Your task to perform on an android device: Add "jbl charge 4" to the cart on walmart.com, then select checkout. Image 0: 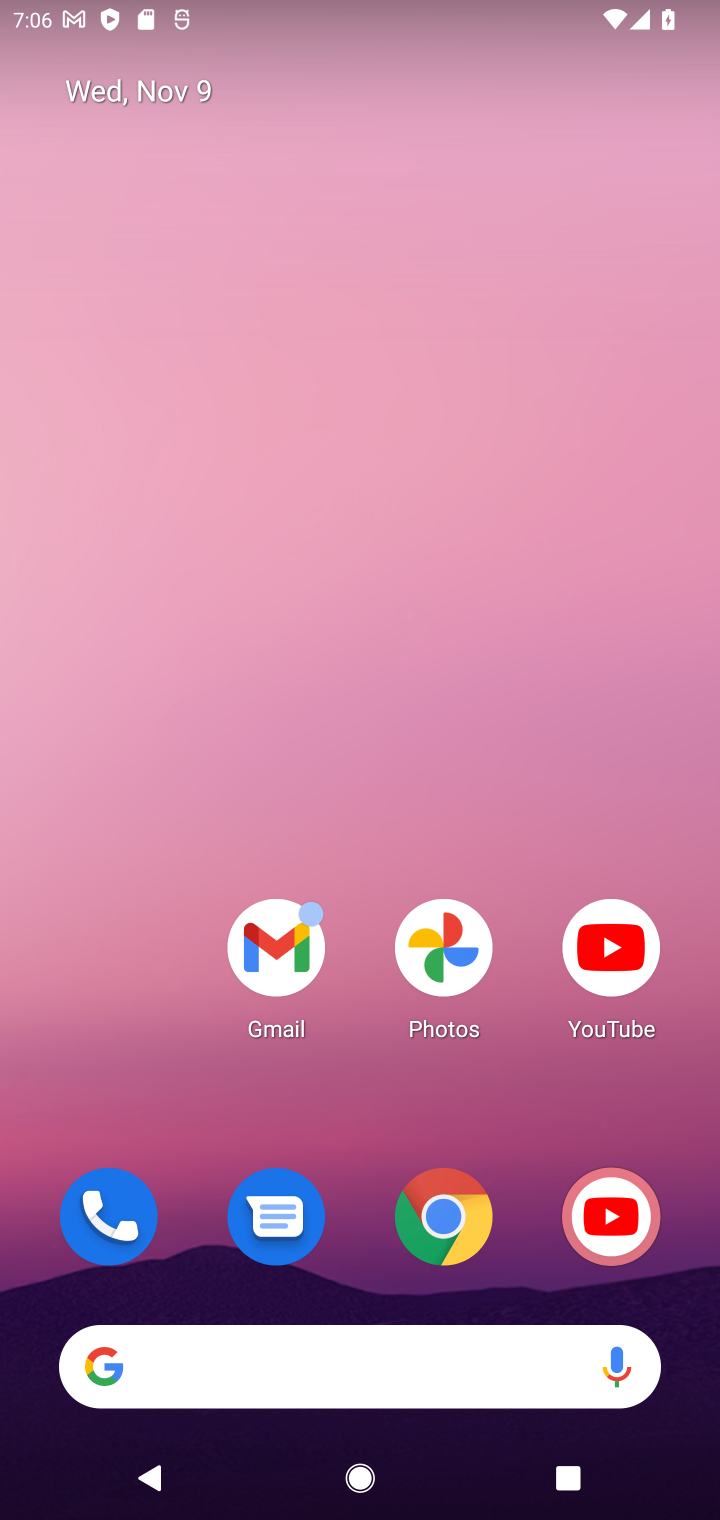
Step 0: drag from (351, 1077) to (367, 149)
Your task to perform on an android device: Add "jbl charge 4" to the cart on walmart.com, then select checkout. Image 1: 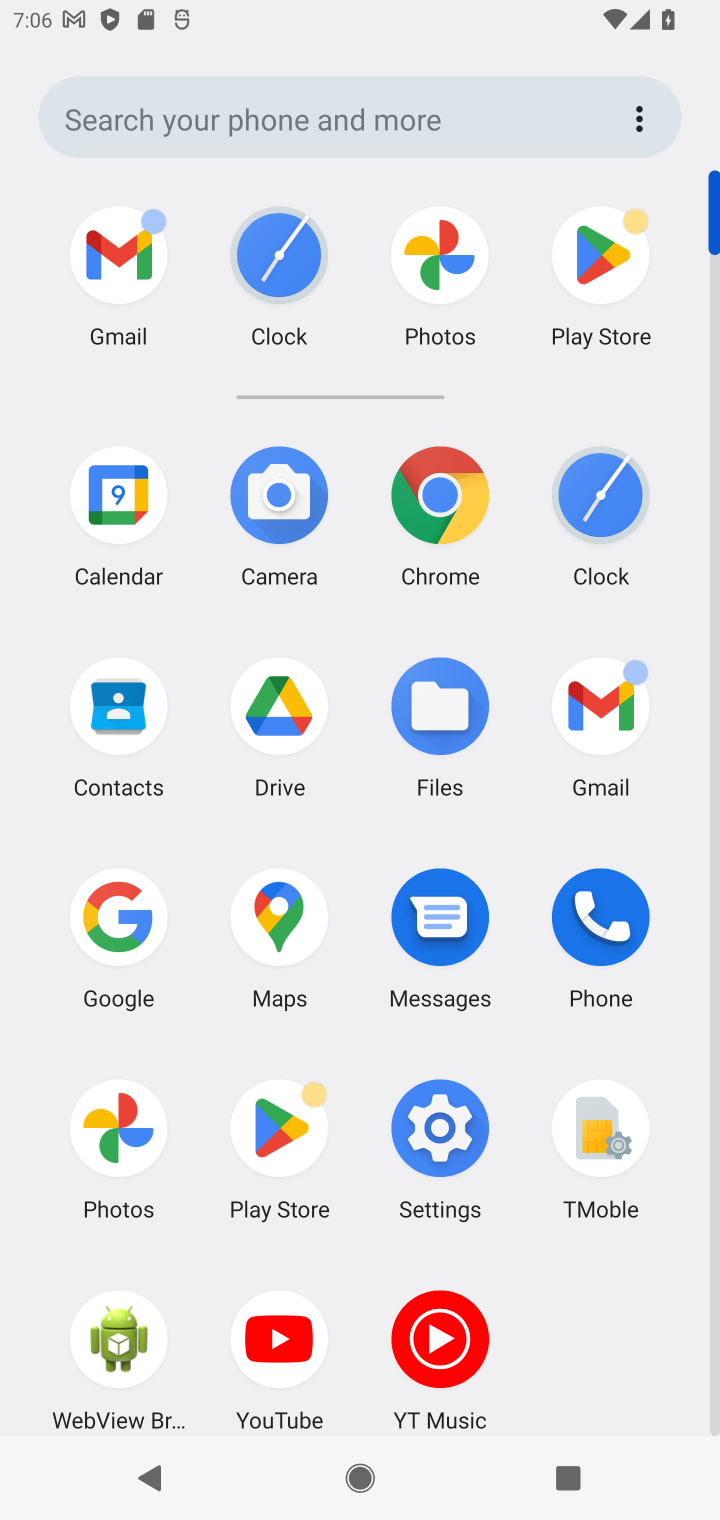
Step 1: click (439, 499)
Your task to perform on an android device: Add "jbl charge 4" to the cart on walmart.com, then select checkout. Image 2: 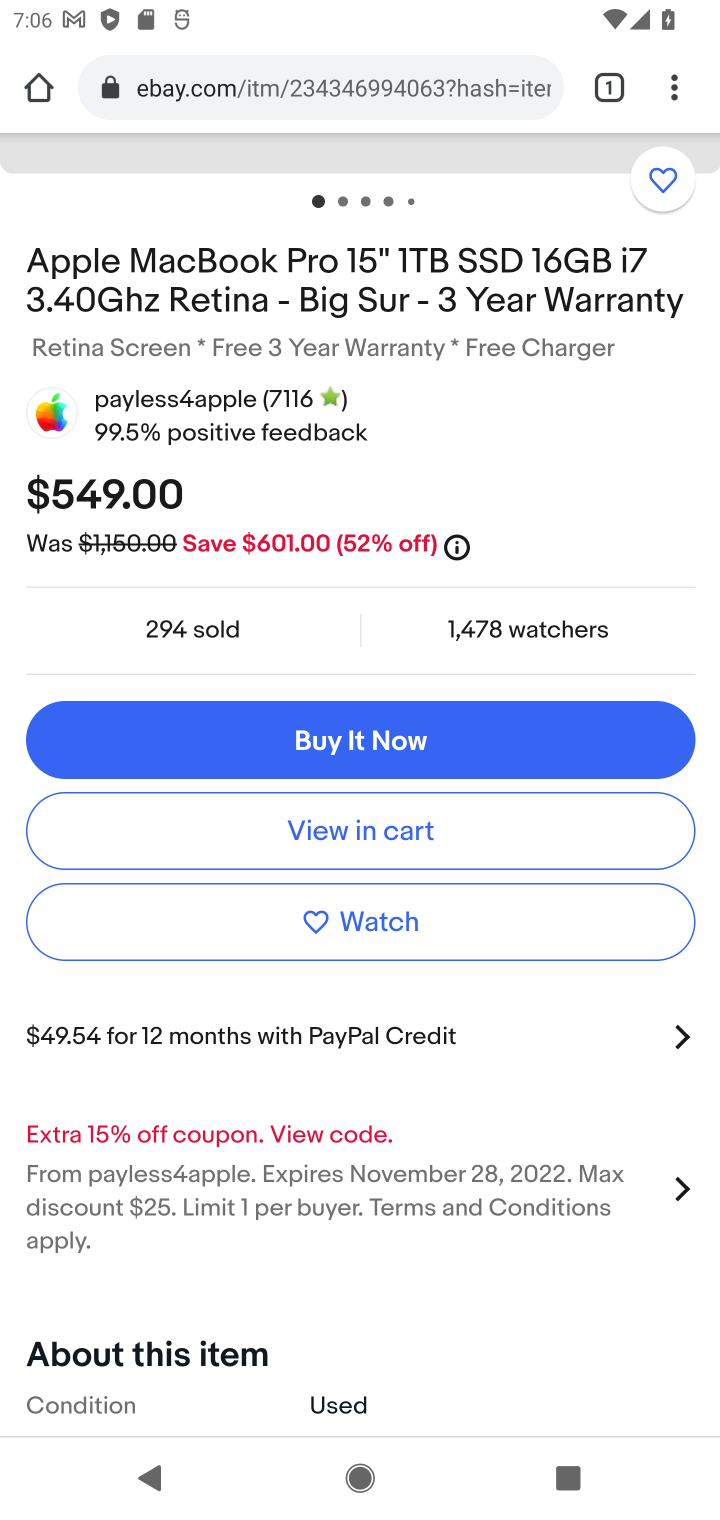
Step 2: click (347, 80)
Your task to perform on an android device: Add "jbl charge 4" to the cart on walmart.com, then select checkout. Image 3: 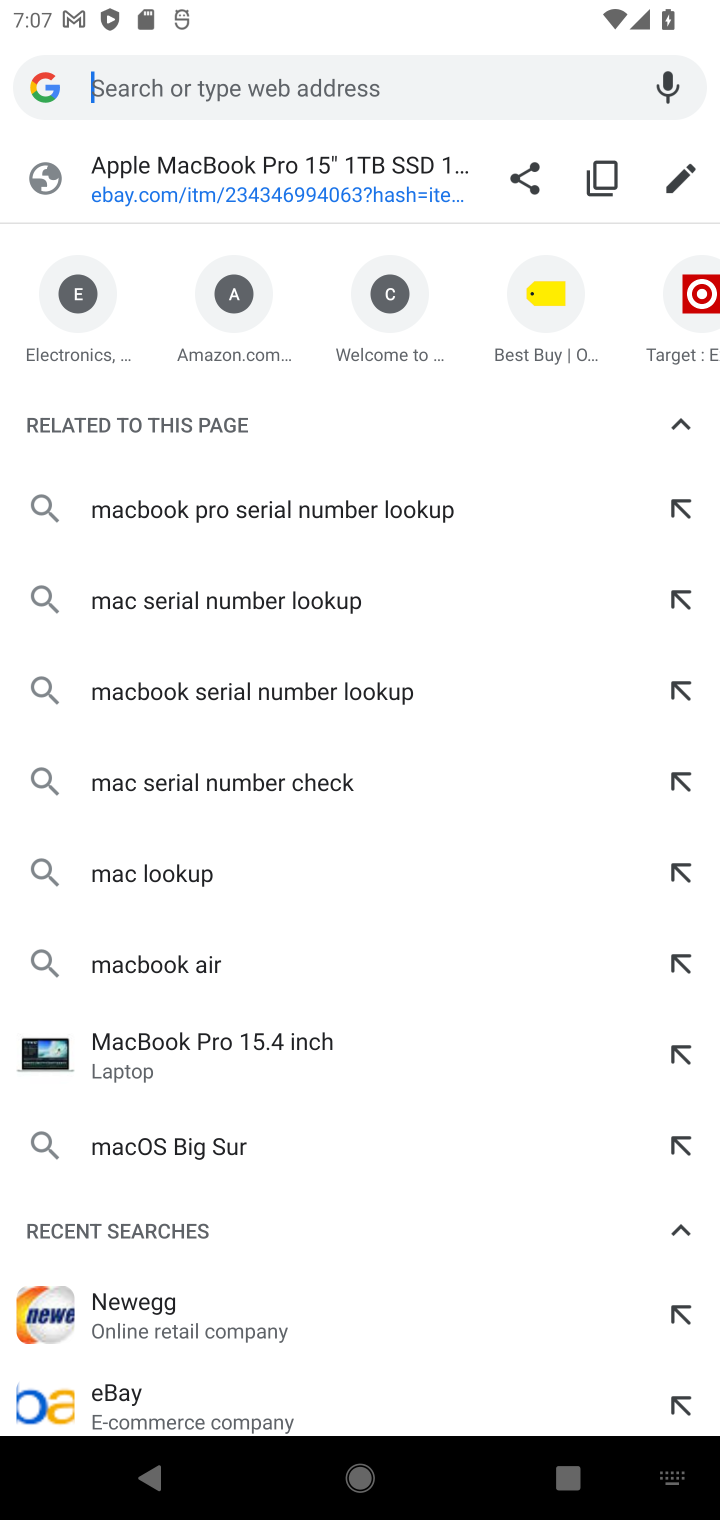
Step 3: type "walmart.com"
Your task to perform on an android device: Add "jbl charge 4" to the cart on walmart.com, then select checkout. Image 4: 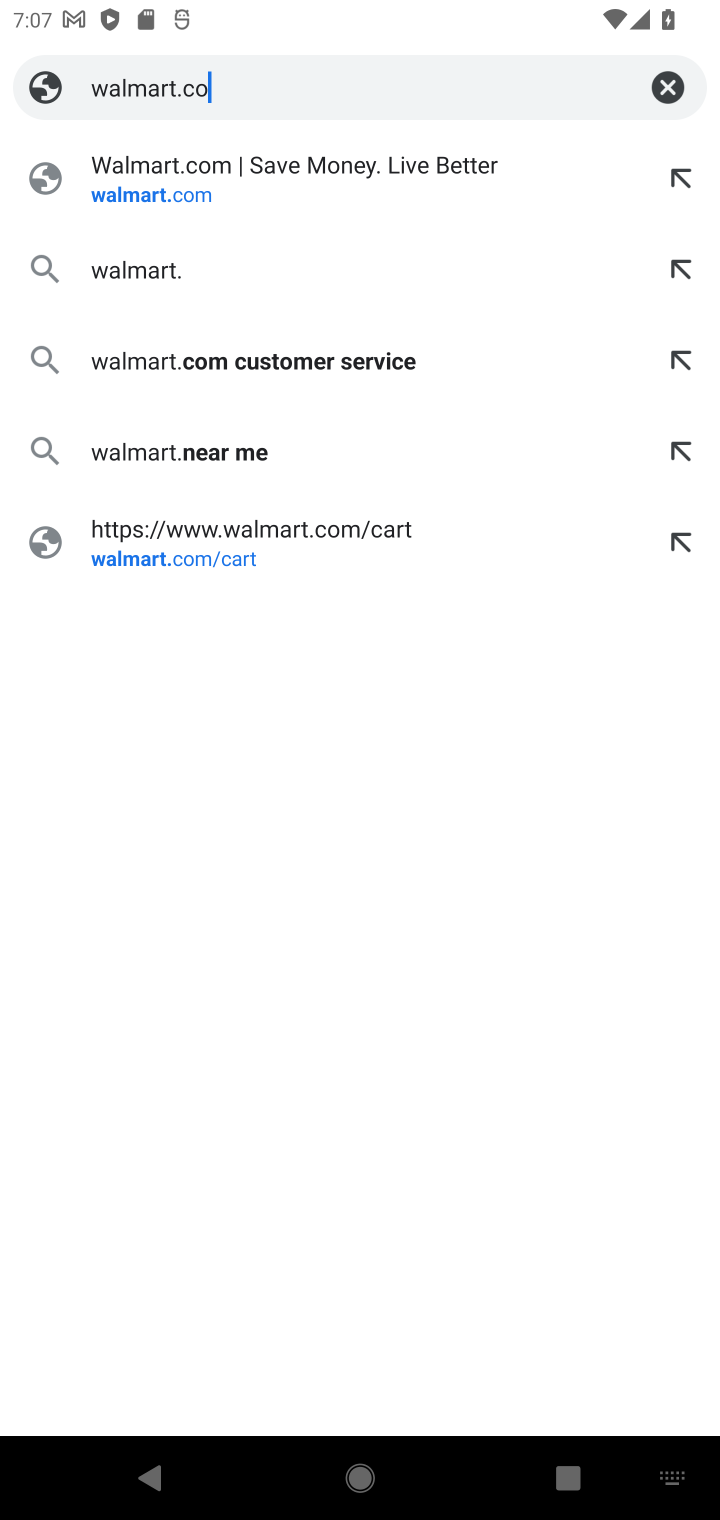
Step 4: press enter
Your task to perform on an android device: Add "jbl charge 4" to the cart on walmart.com, then select checkout. Image 5: 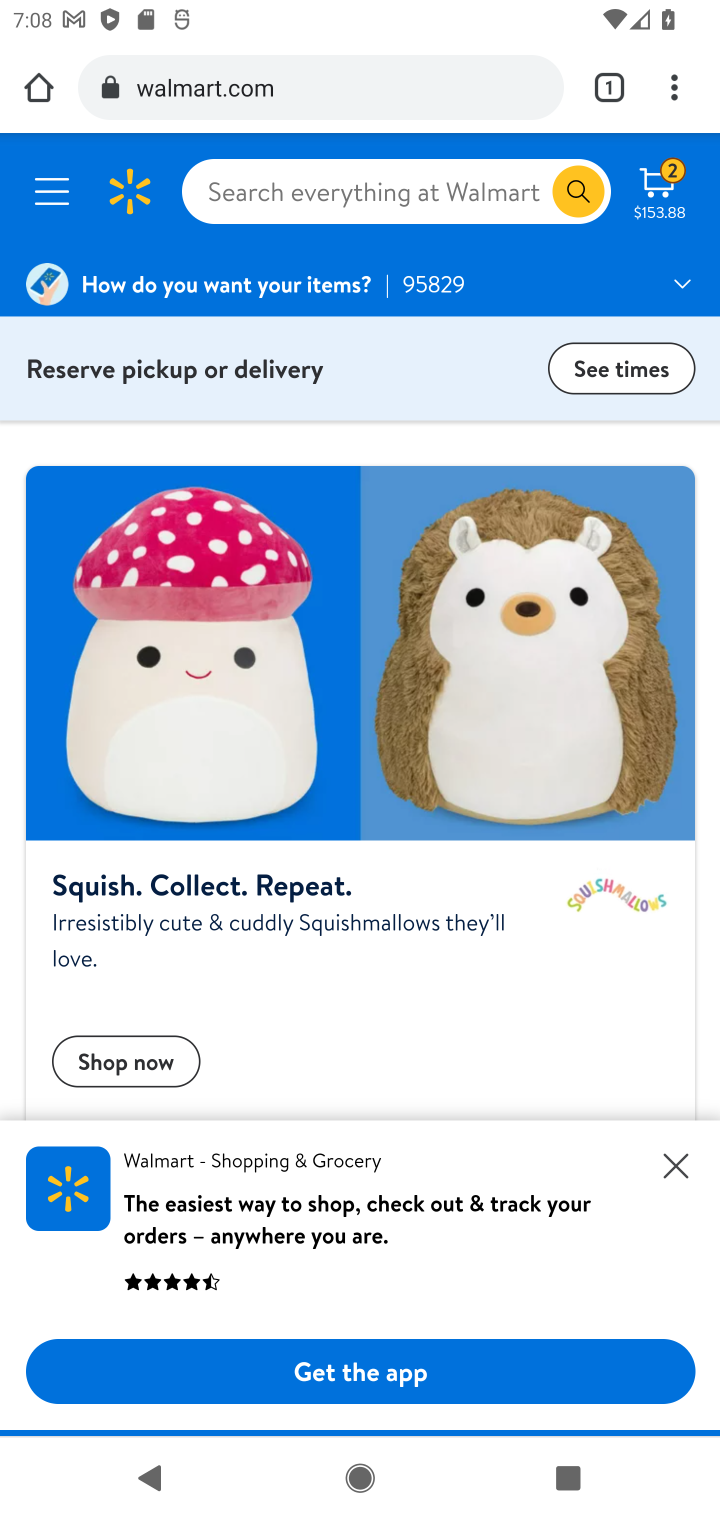
Step 5: click (432, 197)
Your task to perform on an android device: Add "jbl charge 4" to the cart on walmart.com, then select checkout. Image 6: 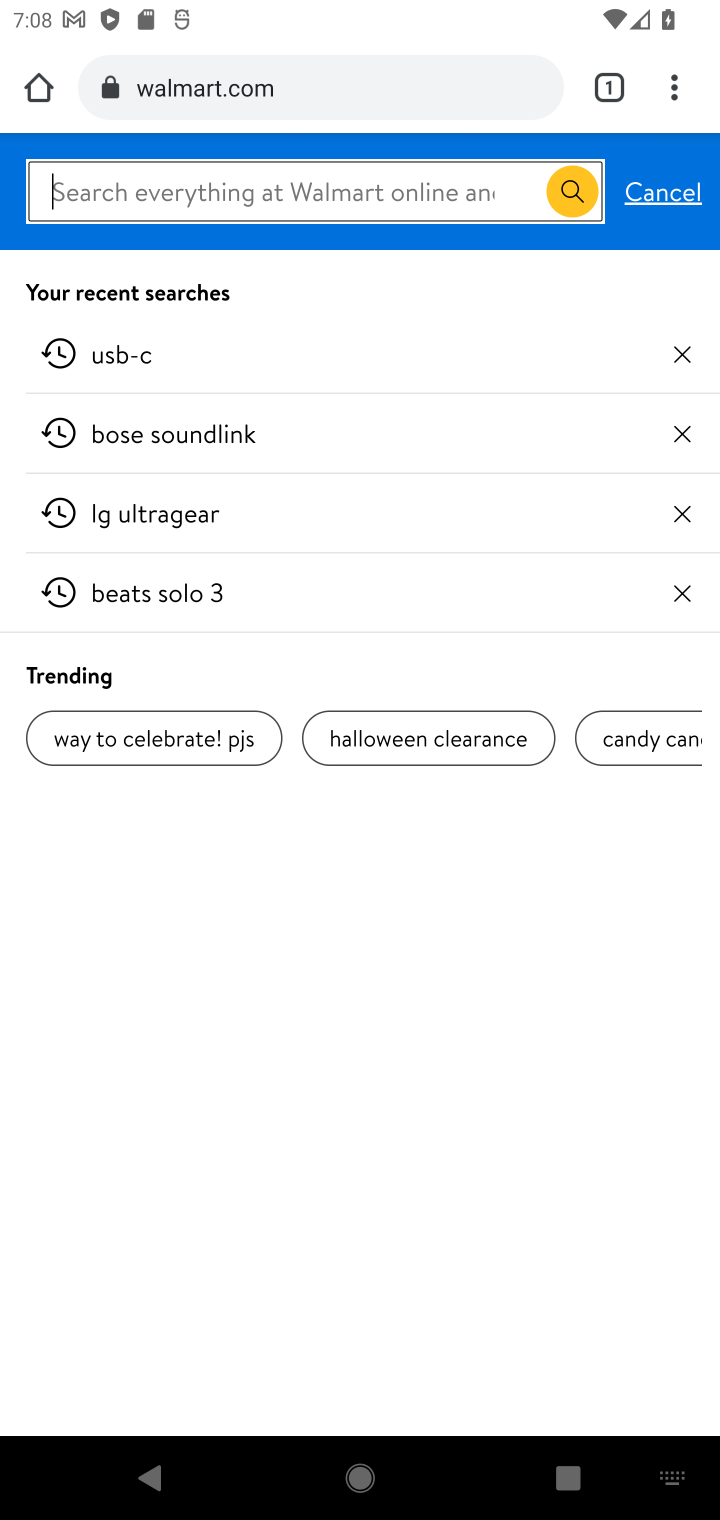
Step 6: type "jbl charge 4"
Your task to perform on an android device: Add "jbl charge 4" to the cart on walmart.com, then select checkout. Image 7: 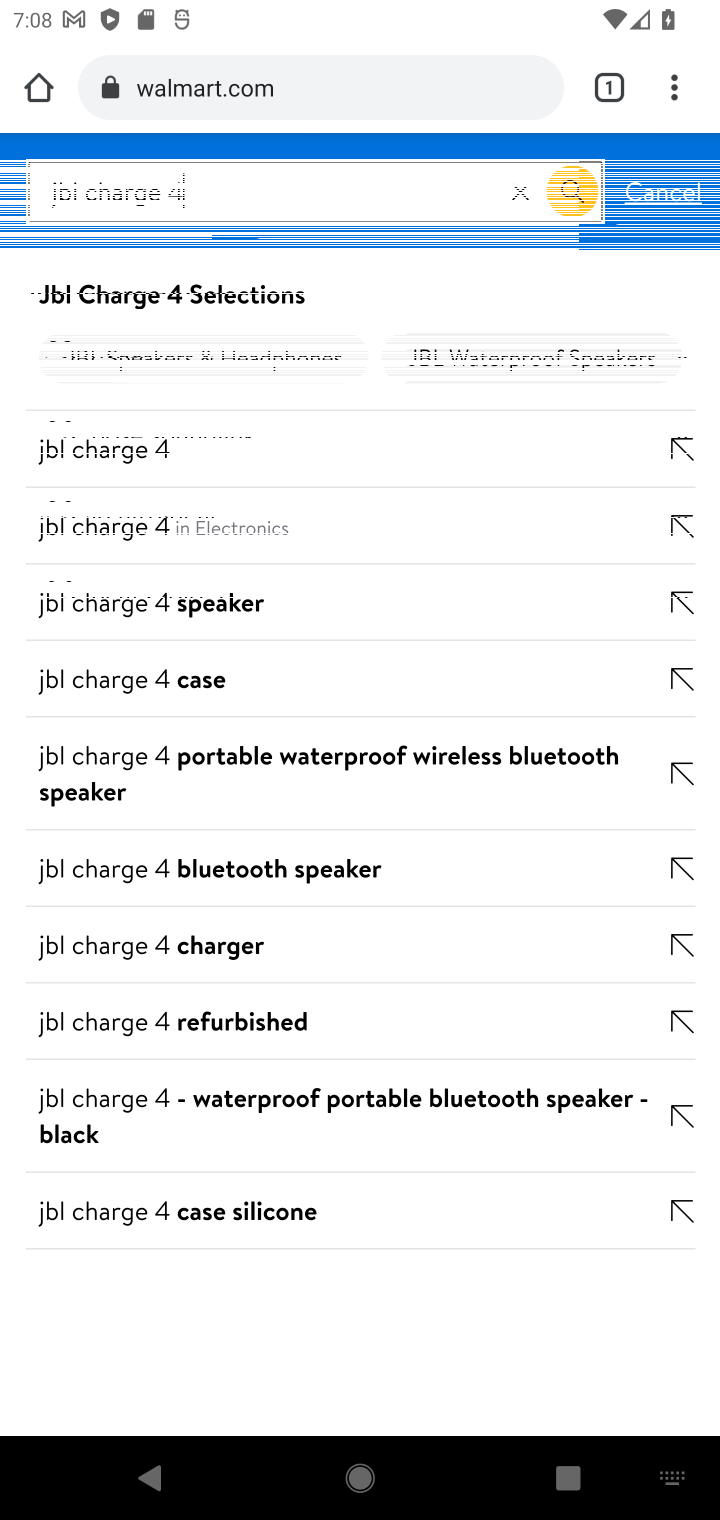
Step 7: press enter
Your task to perform on an android device: Add "jbl charge 4" to the cart on walmart.com, then select checkout. Image 8: 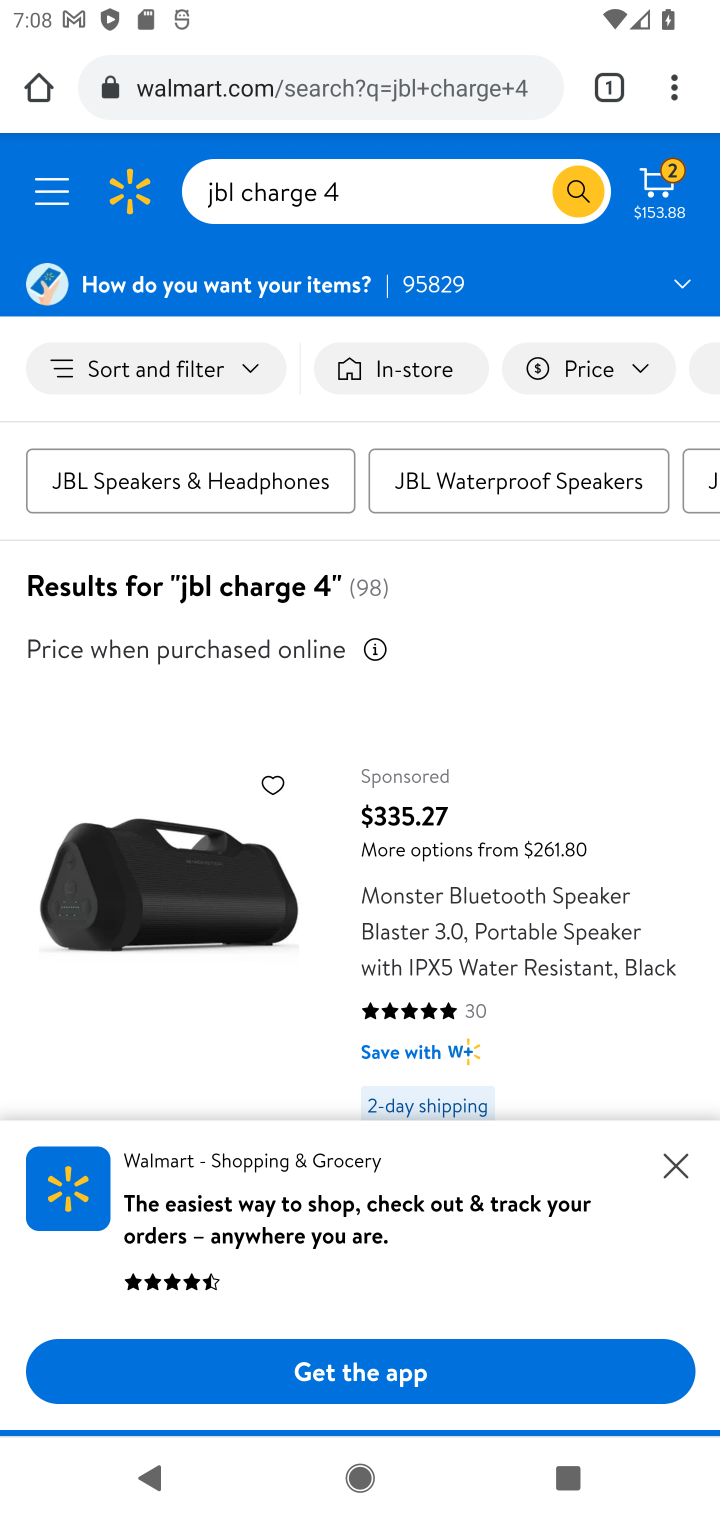
Step 8: drag from (431, 903) to (464, 154)
Your task to perform on an android device: Add "jbl charge 4" to the cart on walmart.com, then select checkout. Image 9: 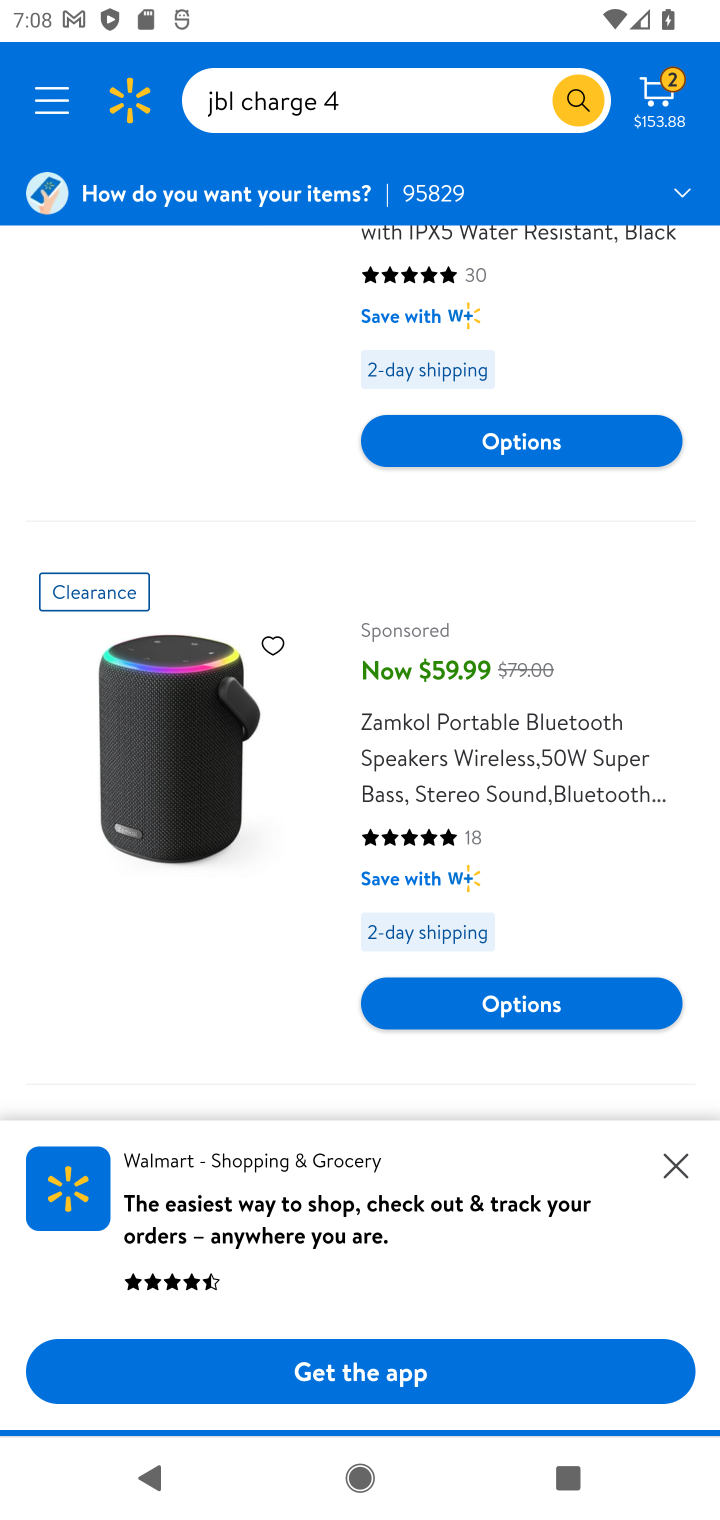
Step 9: drag from (406, 597) to (446, 215)
Your task to perform on an android device: Add "jbl charge 4" to the cart on walmart.com, then select checkout. Image 10: 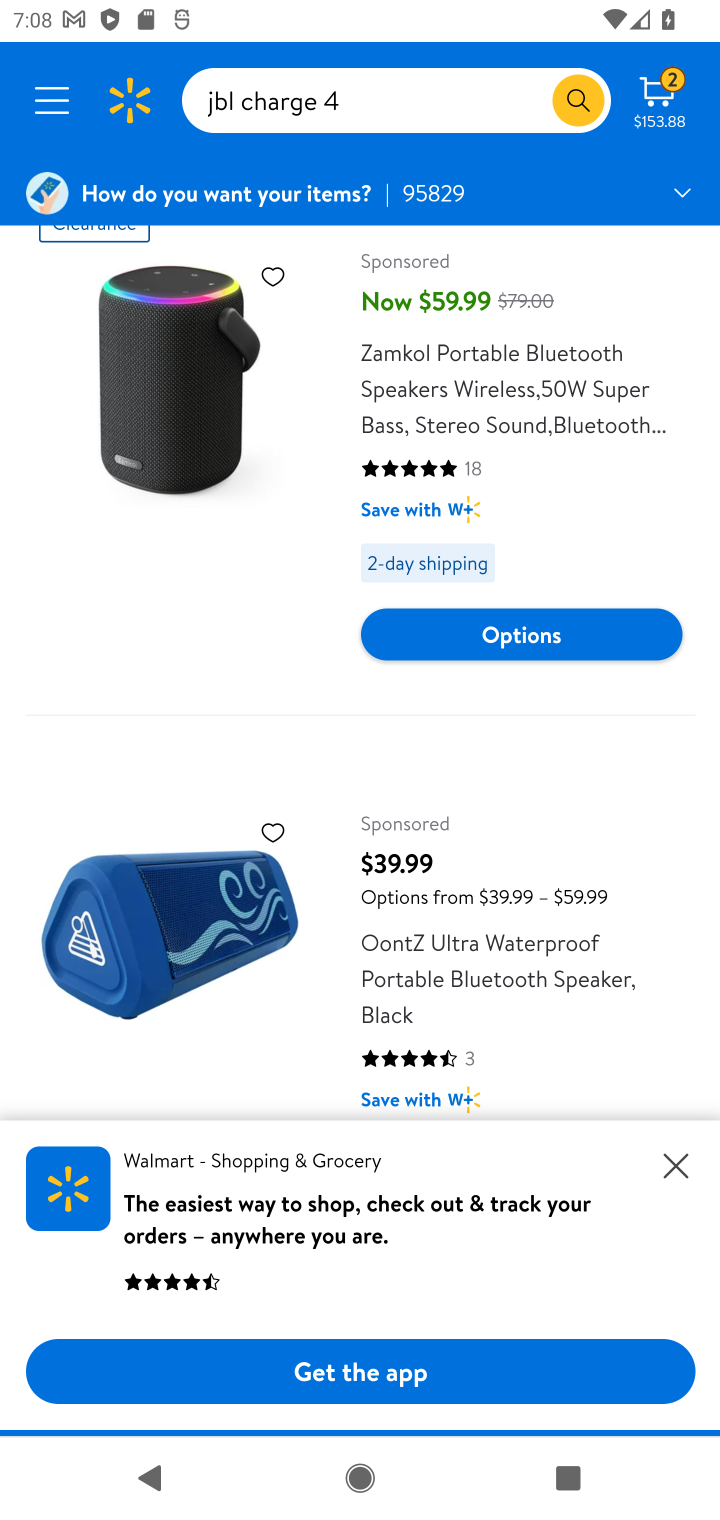
Step 10: drag from (566, 886) to (532, 298)
Your task to perform on an android device: Add "jbl charge 4" to the cart on walmart.com, then select checkout. Image 11: 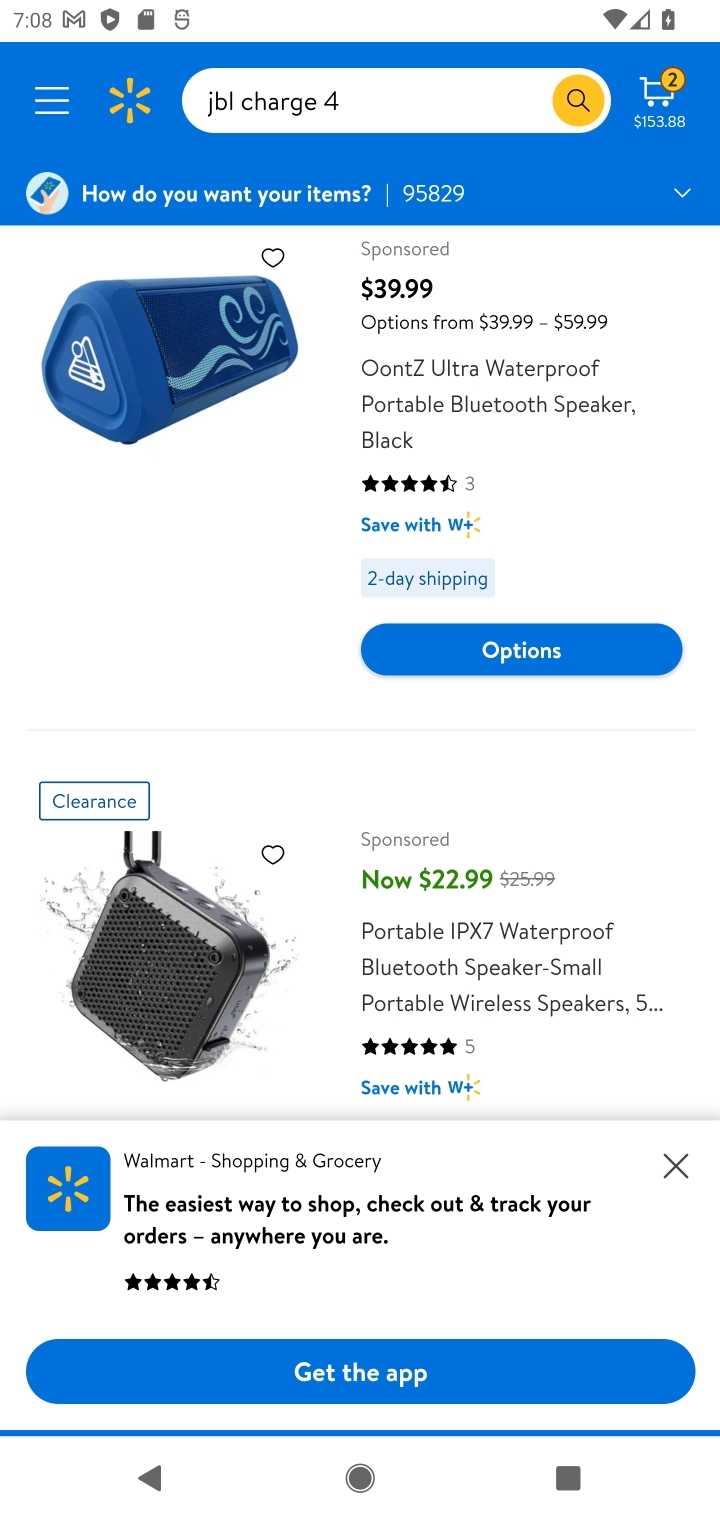
Step 11: drag from (519, 996) to (554, 263)
Your task to perform on an android device: Add "jbl charge 4" to the cart on walmart.com, then select checkout. Image 12: 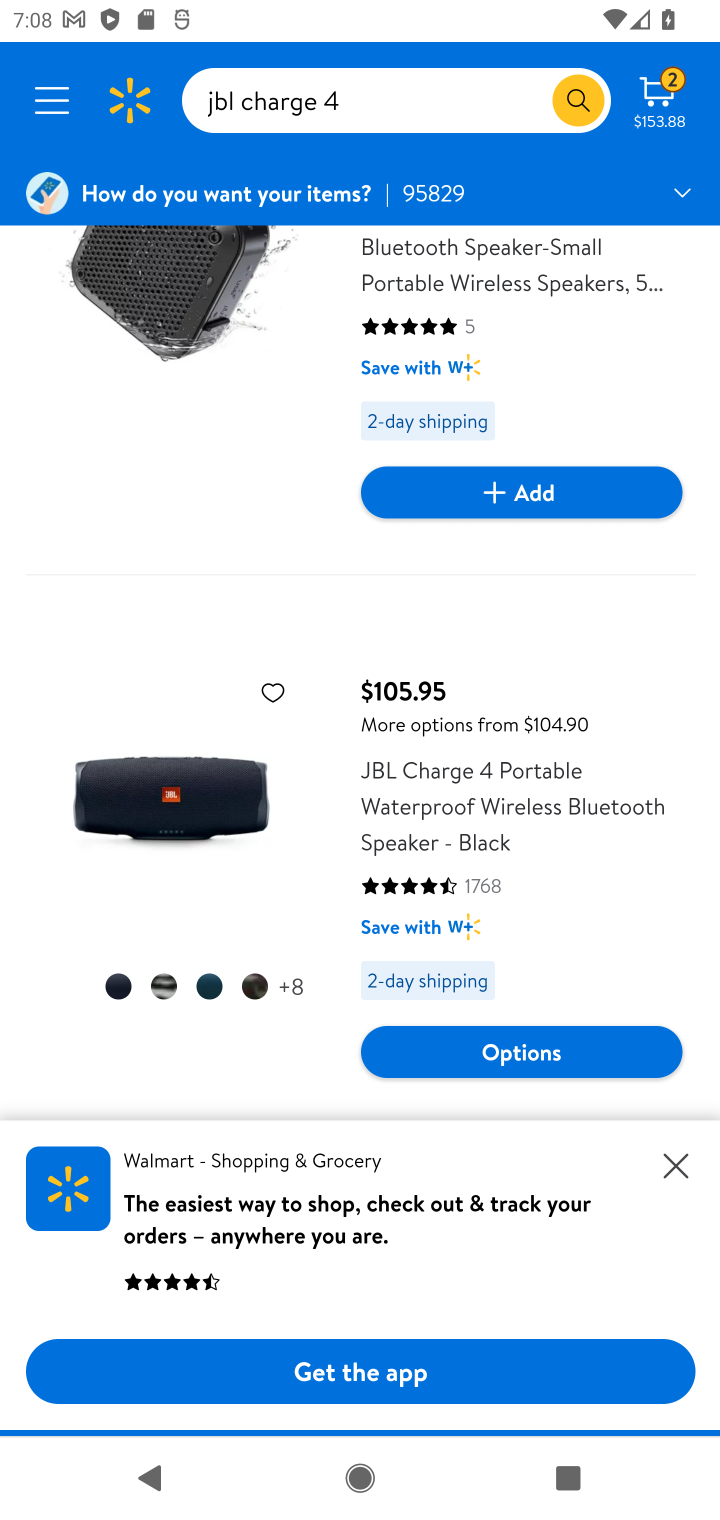
Step 12: click (588, 1070)
Your task to perform on an android device: Add "jbl charge 4" to the cart on walmart.com, then select checkout. Image 13: 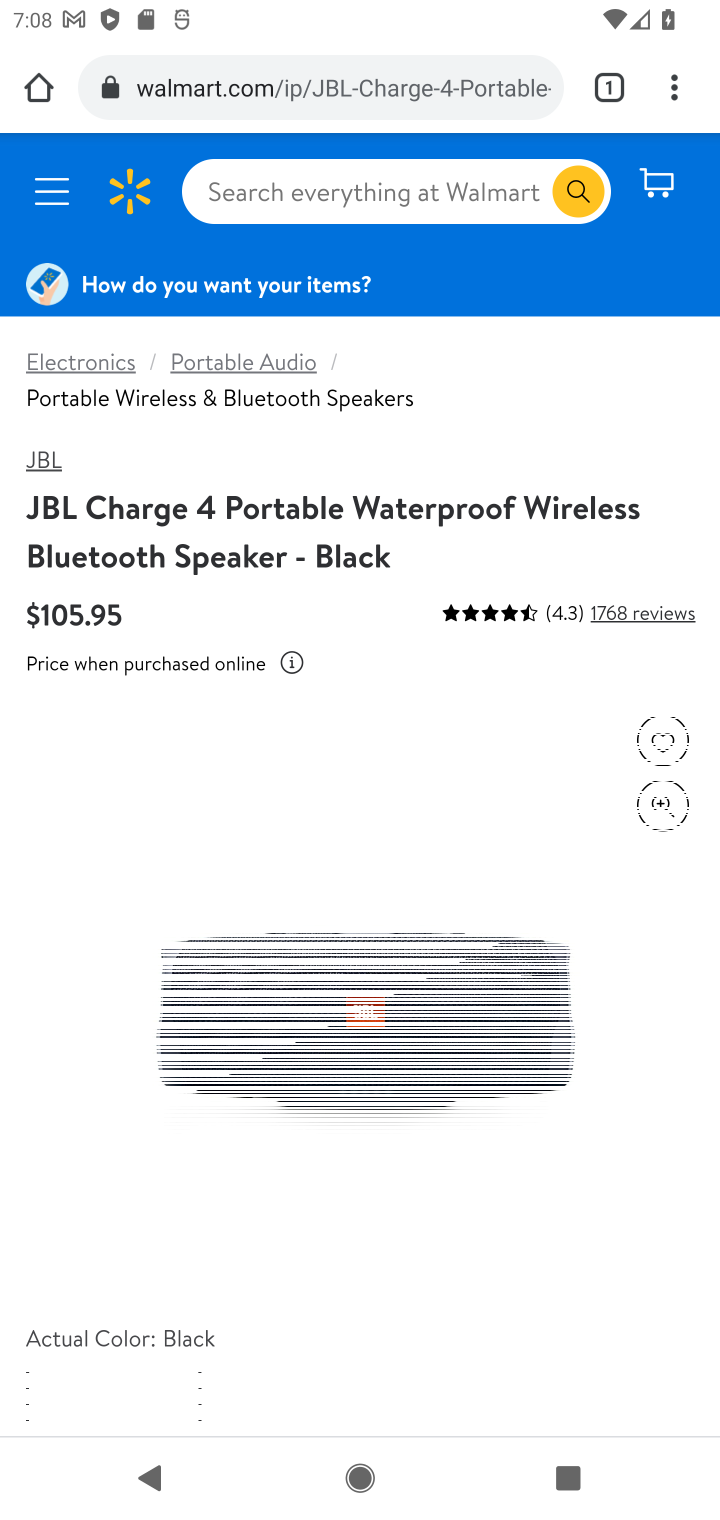
Step 13: drag from (407, 1120) to (356, 393)
Your task to perform on an android device: Add "jbl charge 4" to the cart on walmart.com, then select checkout. Image 14: 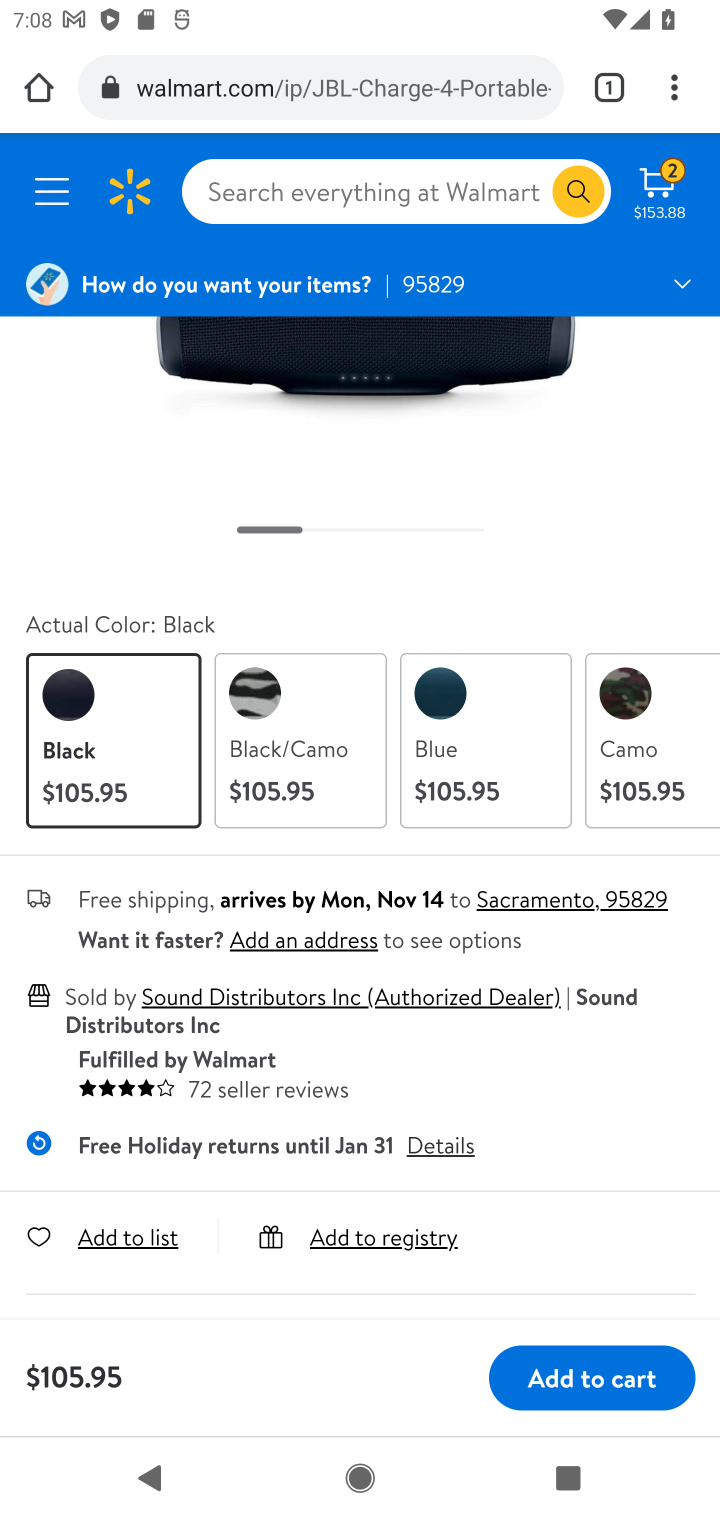
Step 14: click (588, 1381)
Your task to perform on an android device: Add "jbl charge 4" to the cart on walmart.com, then select checkout. Image 15: 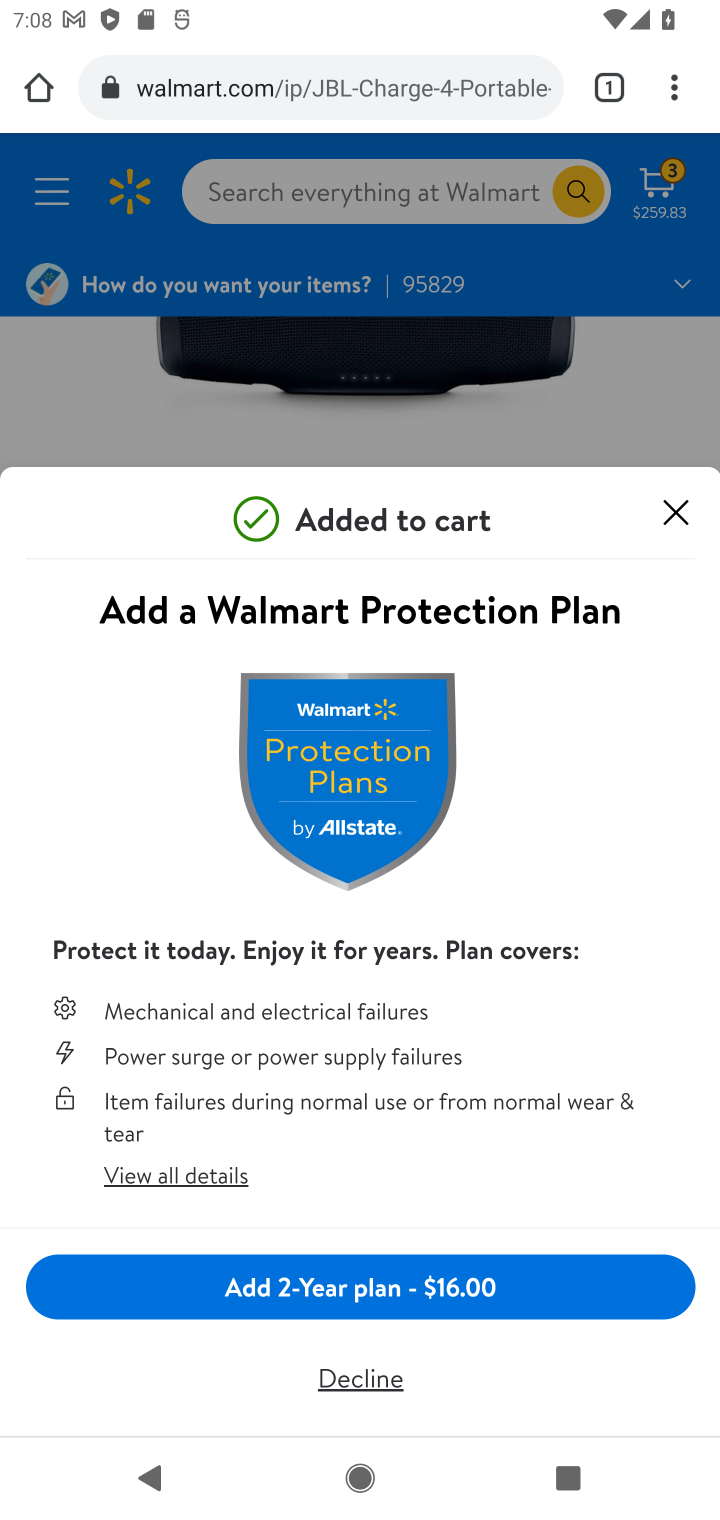
Step 15: click (676, 508)
Your task to perform on an android device: Add "jbl charge 4" to the cart on walmart.com, then select checkout. Image 16: 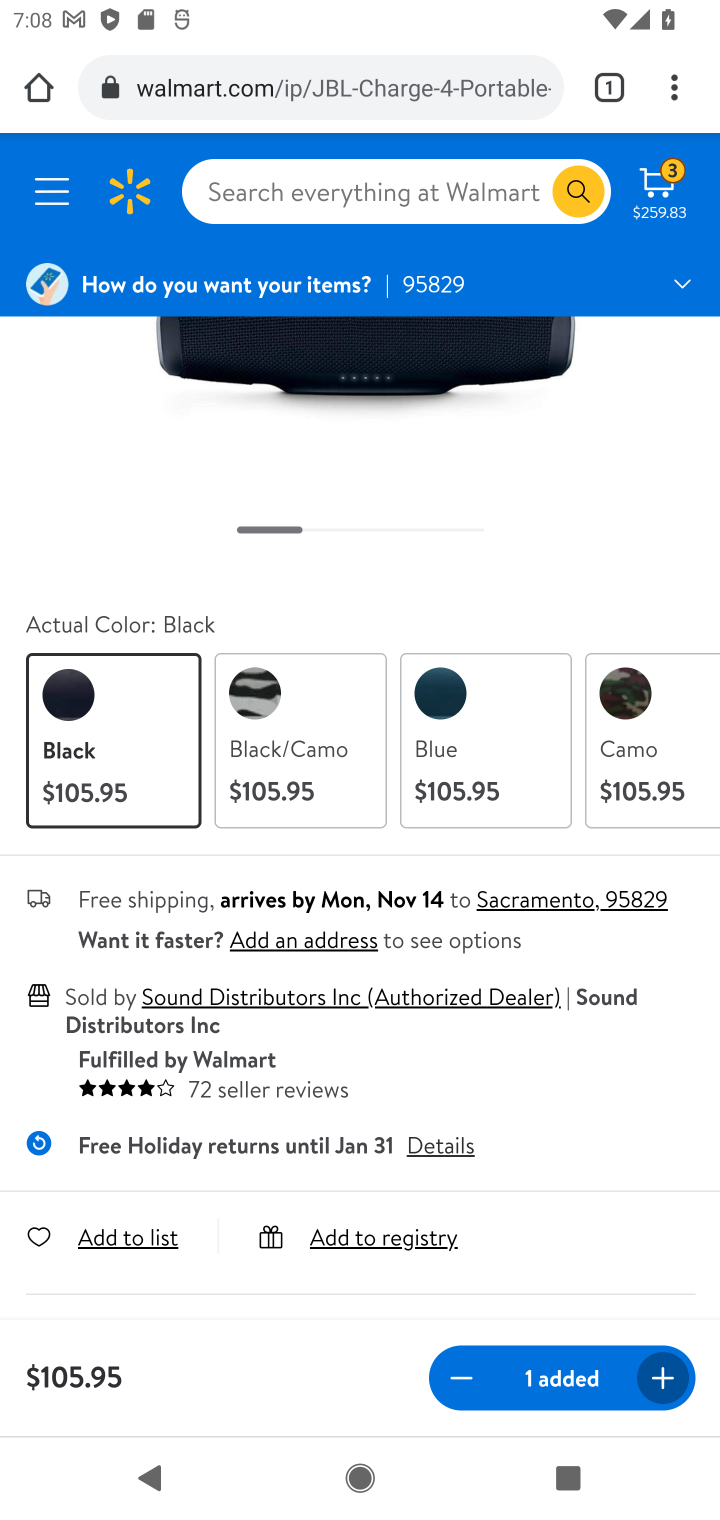
Step 16: drag from (483, 1173) to (475, 297)
Your task to perform on an android device: Add "jbl charge 4" to the cart on walmart.com, then select checkout. Image 17: 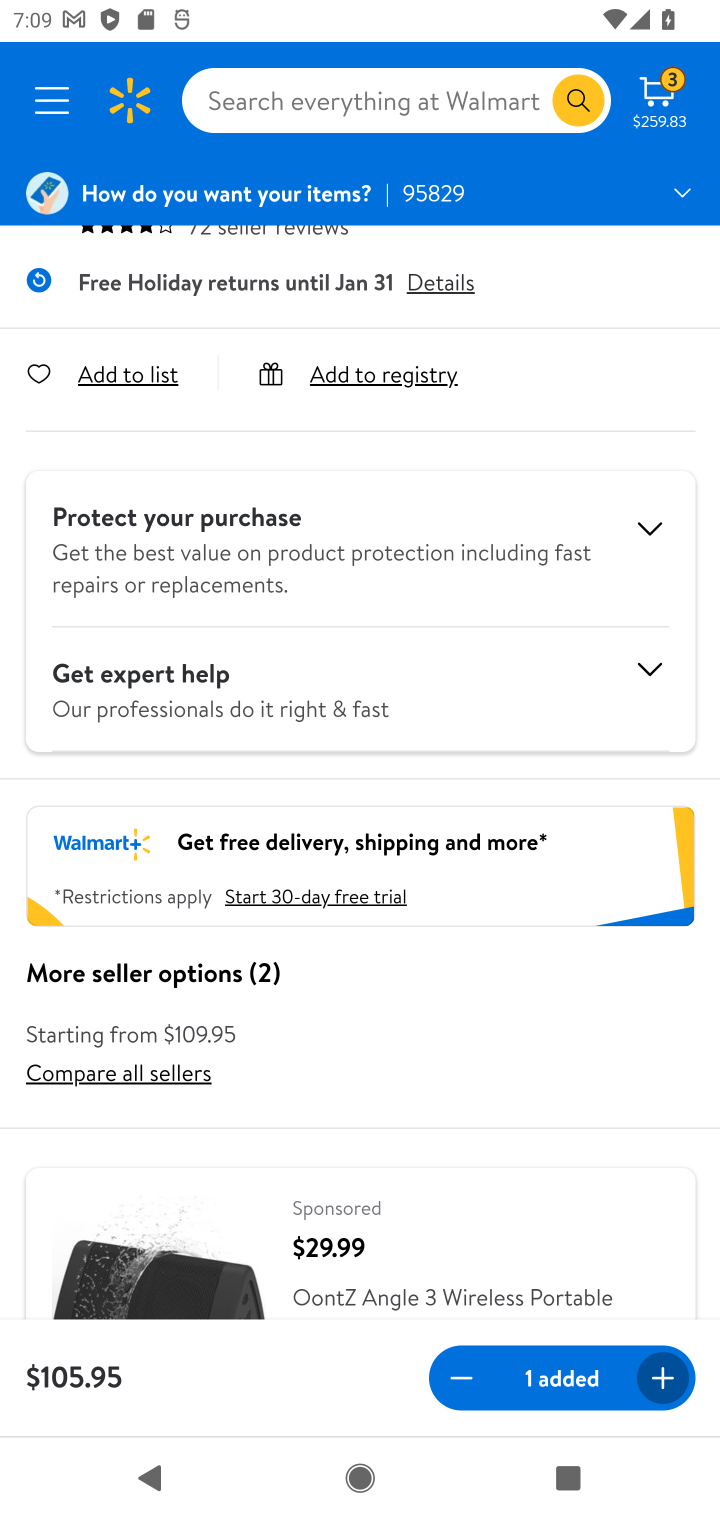
Step 17: click (668, 90)
Your task to perform on an android device: Add "jbl charge 4" to the cart on walmart.com, then select checkout. Image 18: 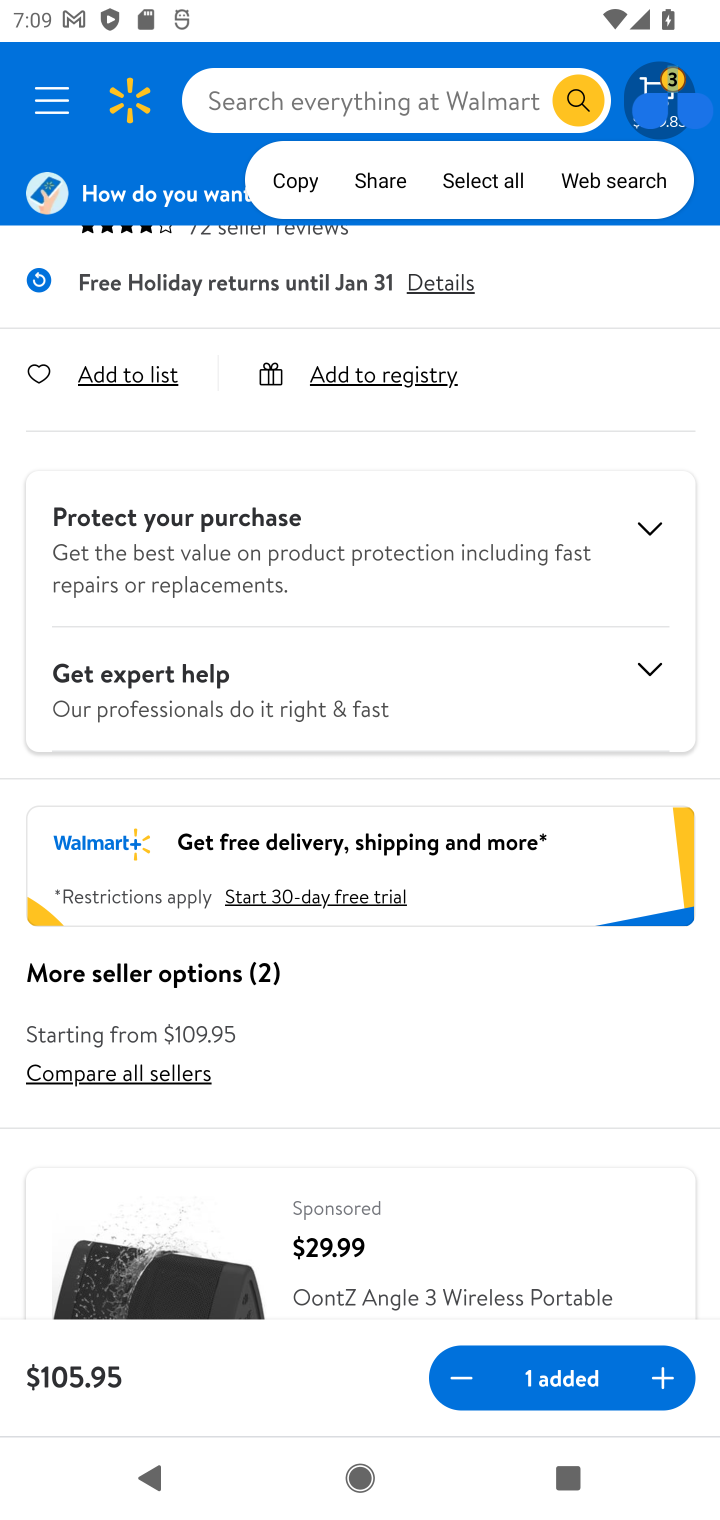
Step 18: click (654, 104)
Your task to perform on an android device: Add "jbl charge 4" to the cart on walmart.com, then select checkout. Image 19: 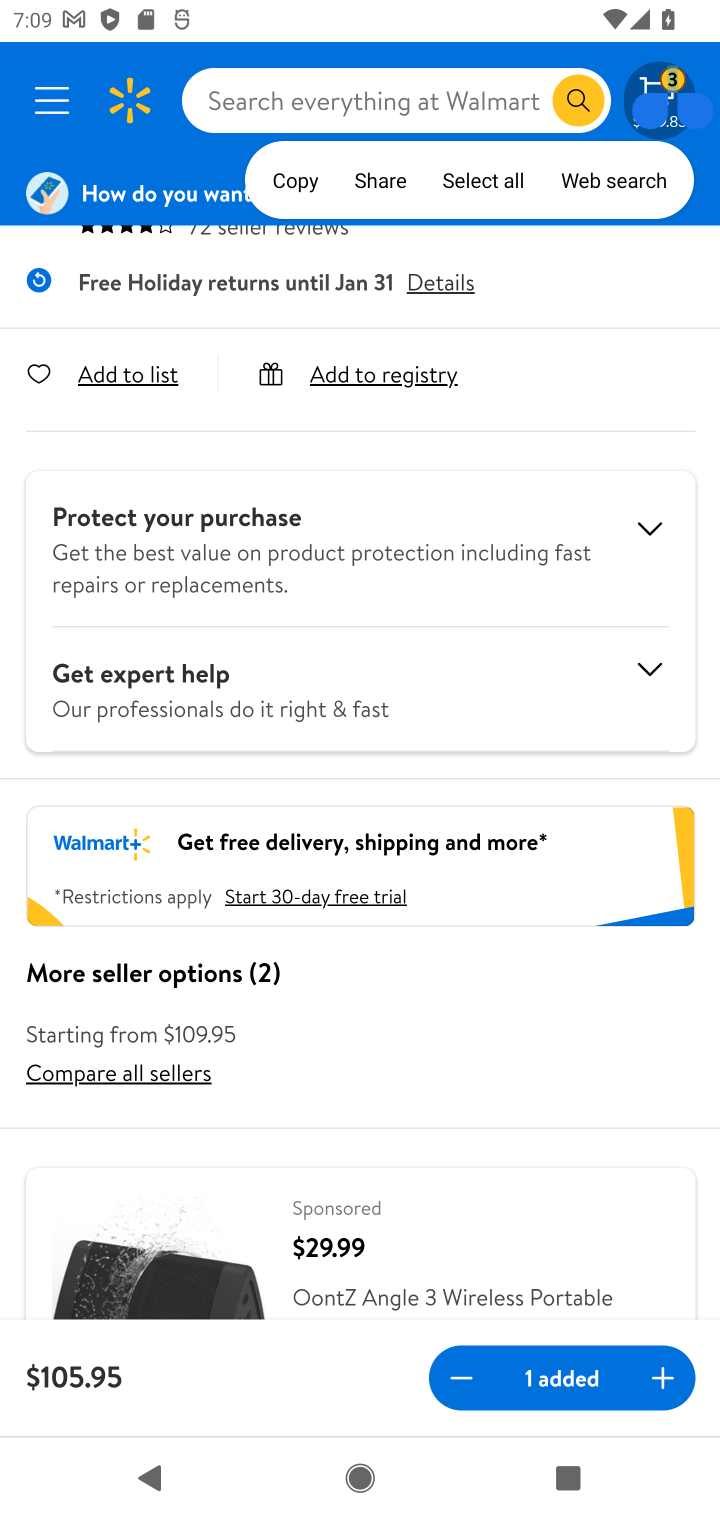
Step 19: click (599, 272)
Your task to perform on an android device: Add "jbl charge 4" to the cart on walmart.com, then select checkout. Image 20: 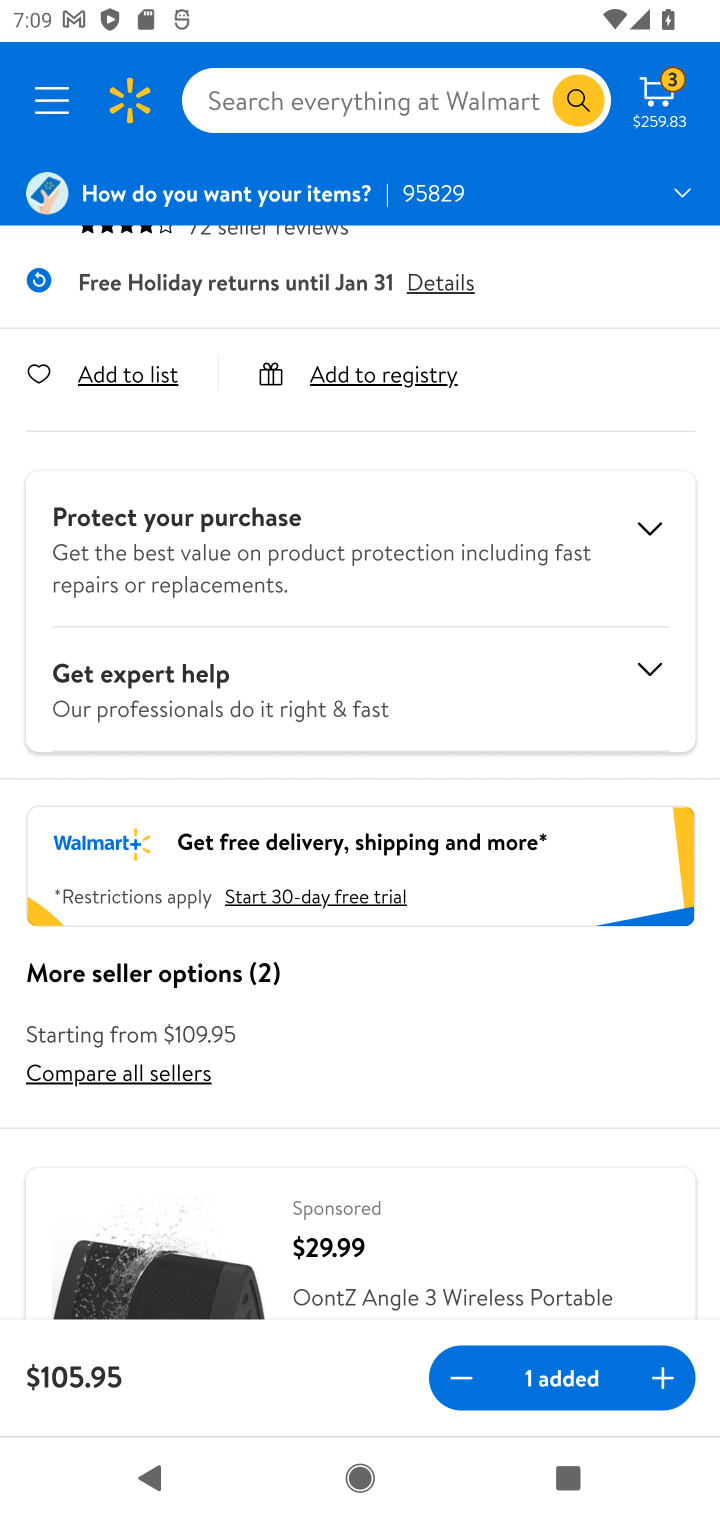
Step 20: click (671, 76)
Your task to perform on an android device: Add "jbl charge 4" to the cart on walmart.com, then select checkout. Image 21: 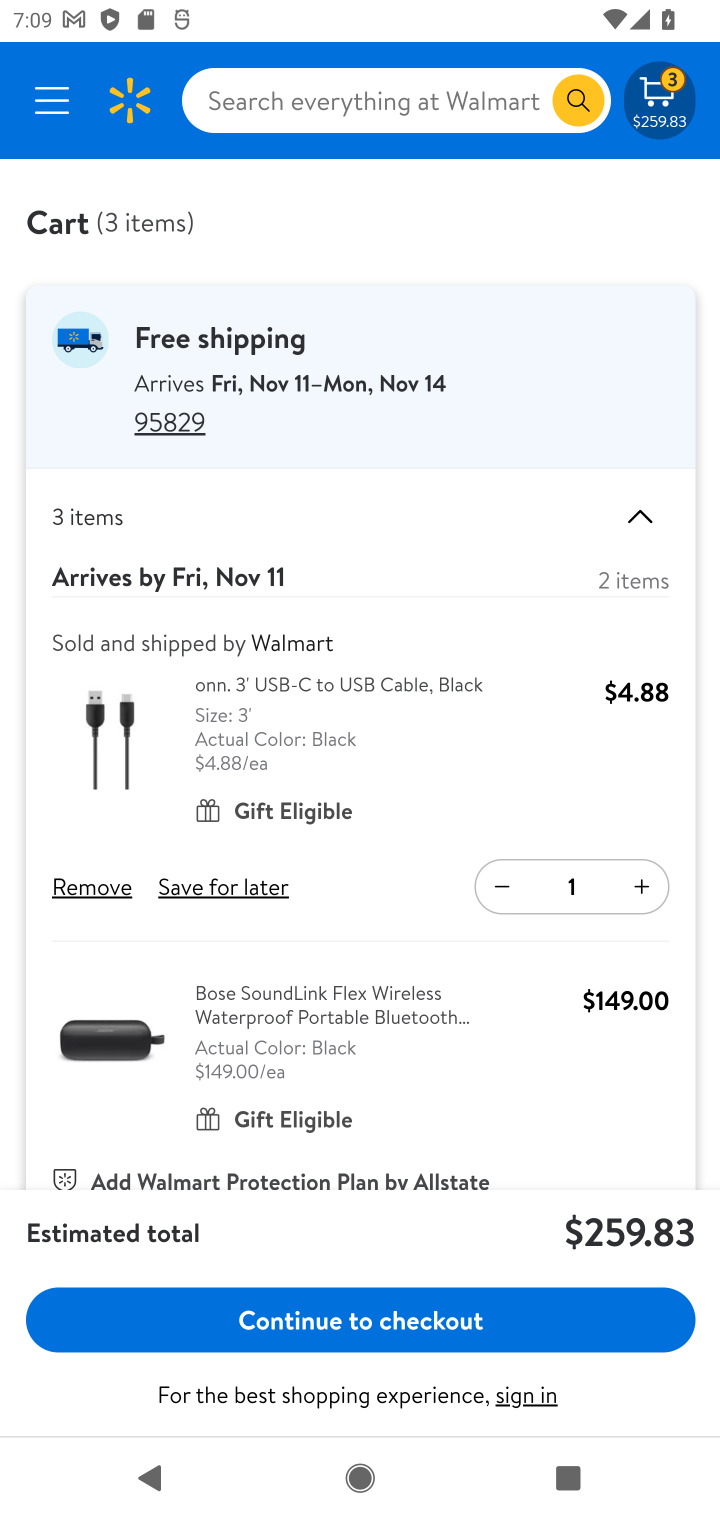
Step 21: click (383, 1314)
Your task to perform on an android device: Add "jbl charge 4" to the cart on walmart.com, then select checkout. Image 22: 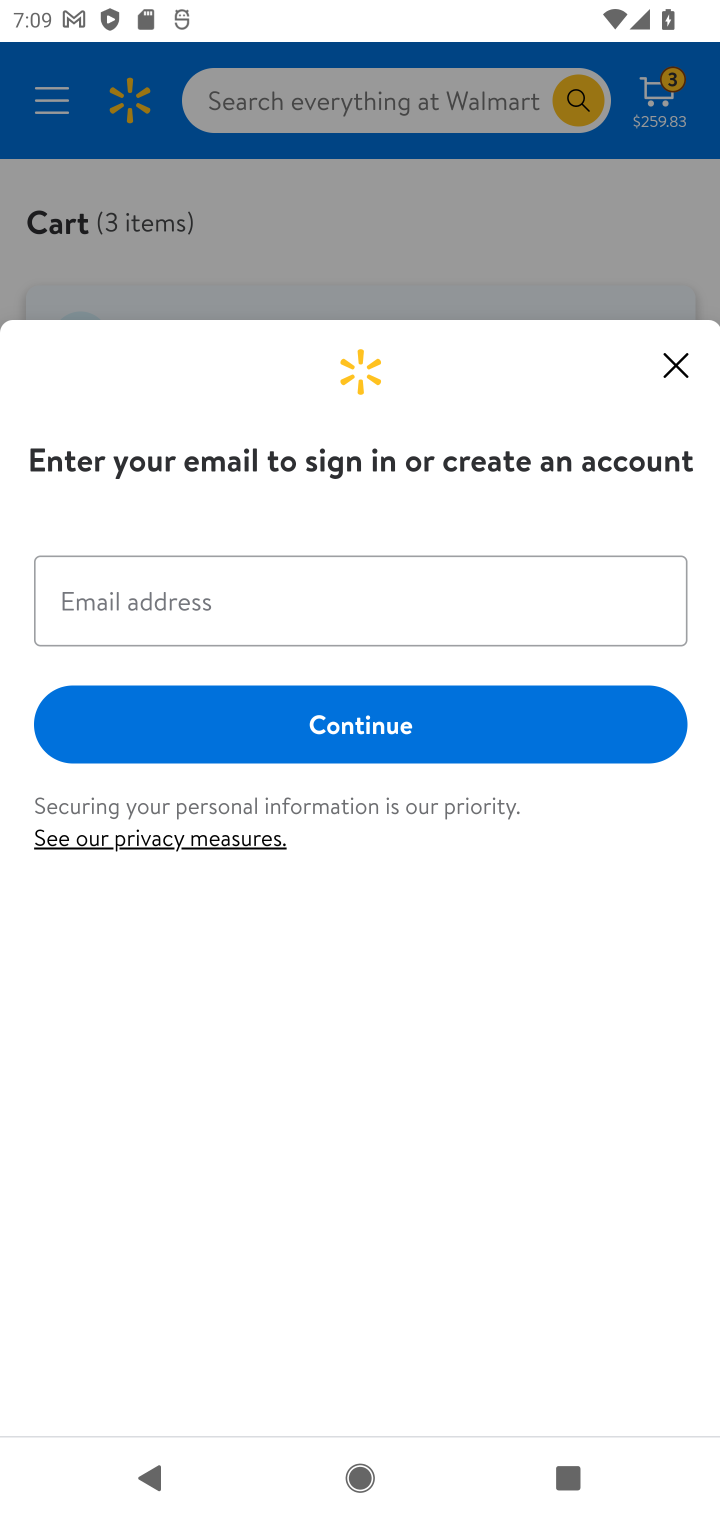
Step 22: task complete